Your task to perform on an android device: toggle pop-ups in chrome Image 0: 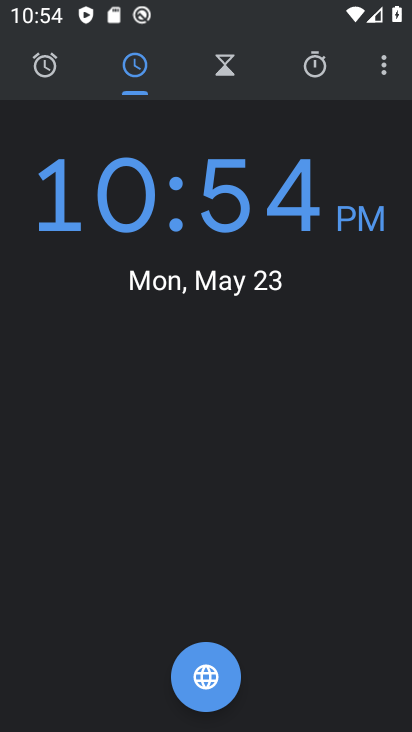
Step 0: click (399, 189)
Your task to perform on an android device: toggle pop-ups in chrome Image 1: 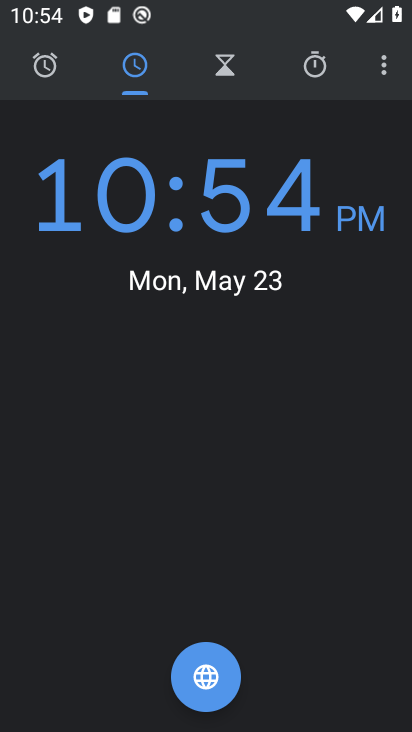
Step 1: press back button
Your task to perform on an android device: toggle pop-ups in chrome Image 2: 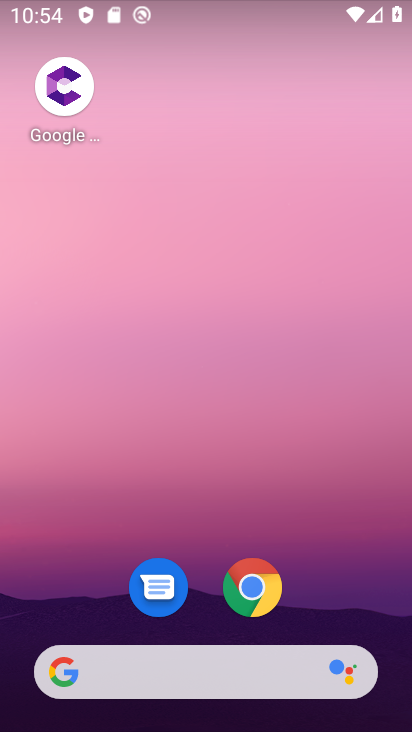
Step 2: drag from (301, 676) to (222, 45)
Your task to perform on an android device: toggle pop-ups in chrome Image 3: 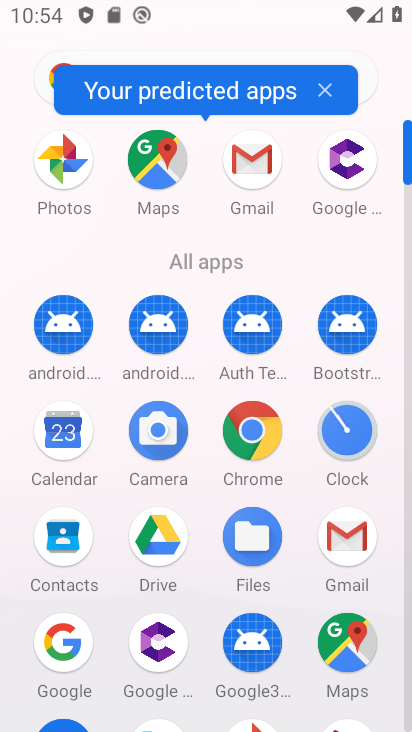
Step 3: click (244, 446)
Your task to perform on an android device: toggle pop-ups in chrome Image 4: 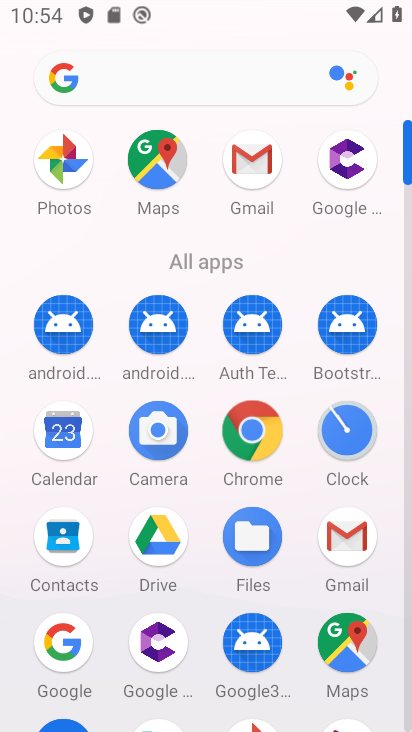
Step 4: click (247, 440)
Your task to perform on an android device: toggle pop-ups in chrome Image 5: 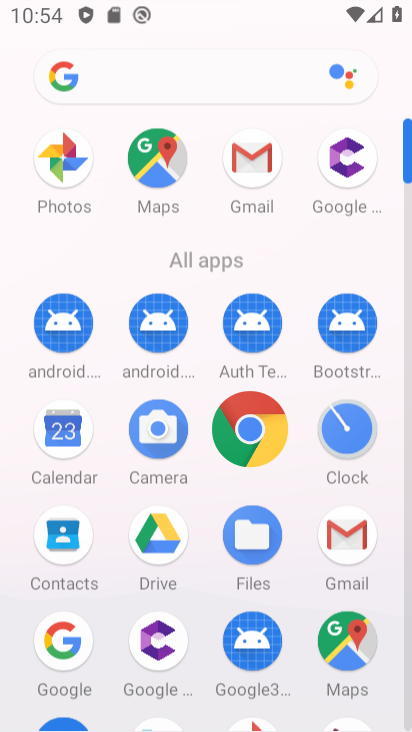
Step 5: click (251, 438)
Your task to perform on an android device: toggle pop-ups in chrome Image 6: 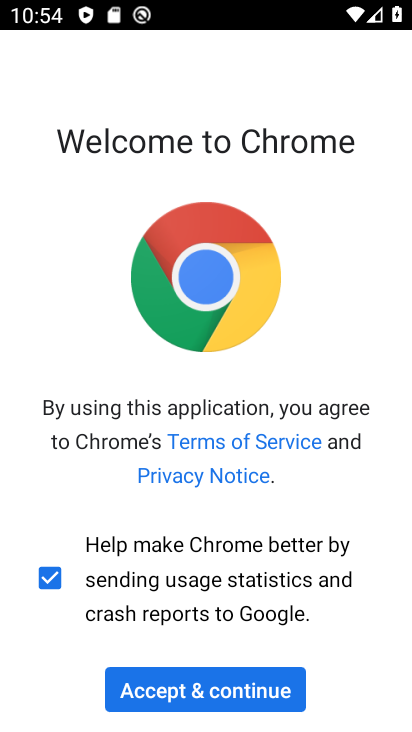
Step 6: click (193, 683)
Your task to perform on an android device: toggle pop-ups in chrome Image 7: 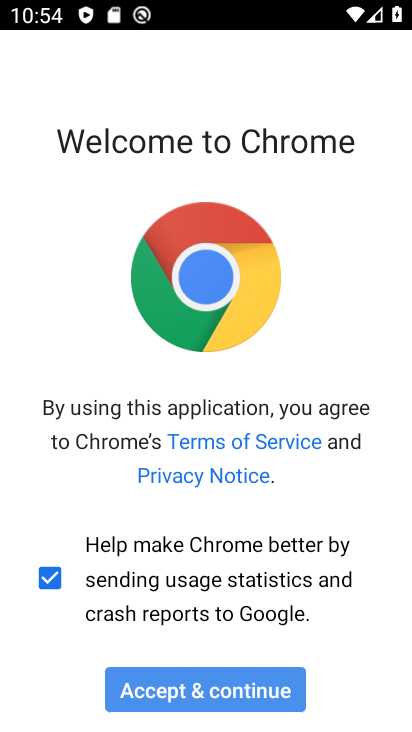
Step 7: click (194, 683)
Your task to perform on an android device: toggle pop-ups in chrome Image 8: 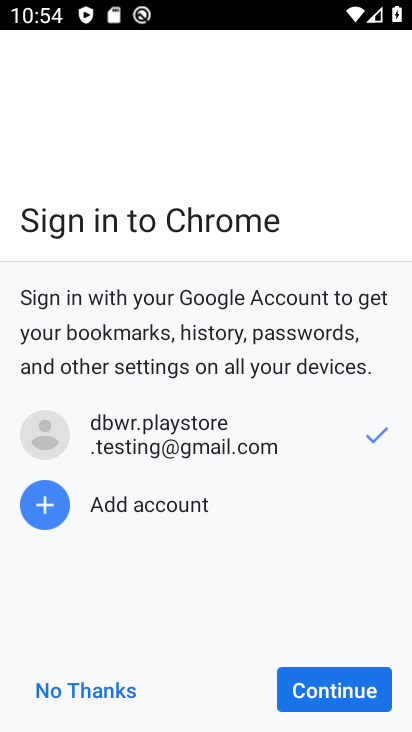
Step 8: click (198, 687)
Your task to perform on an android device: toggle pop-ups in chrome Image 9: 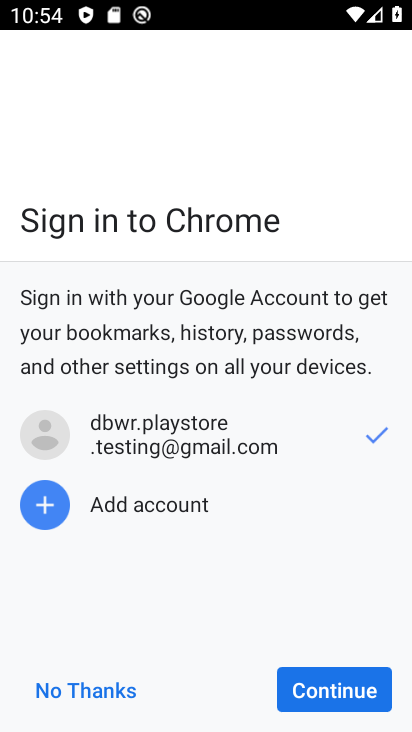
Step 9: click (201, 690)
Your task to perform on an android device: toggle pop-ups in chrome Image 10: 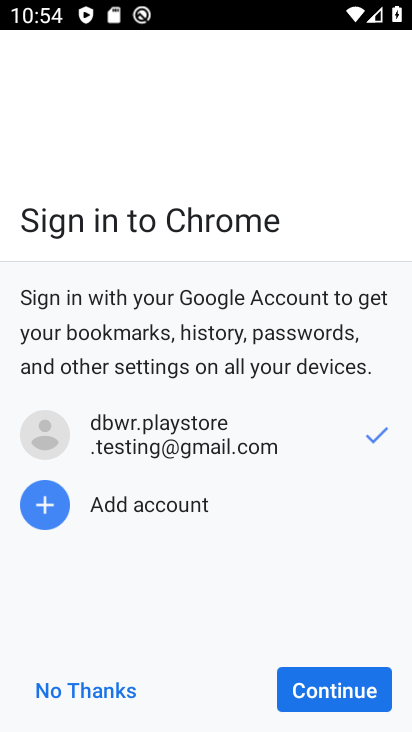
Step 10: click (348, 683)
Your task to perform on an android device: toggle pop-ups in chrome Image 11: 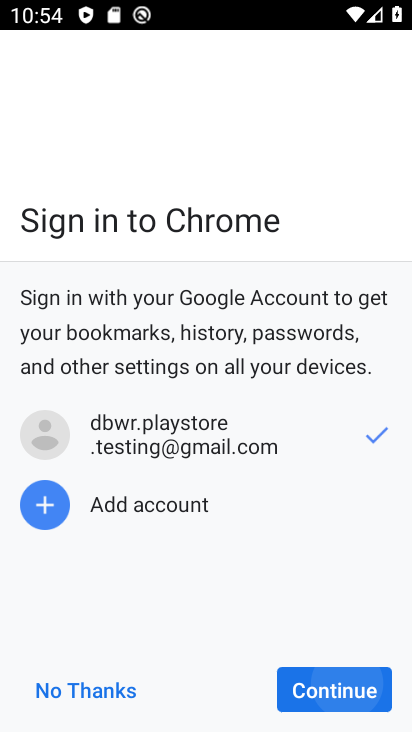
Step 11: click (348, 683)
Your task to perform on an android device: toggle pop-ups in chrome Image 12: 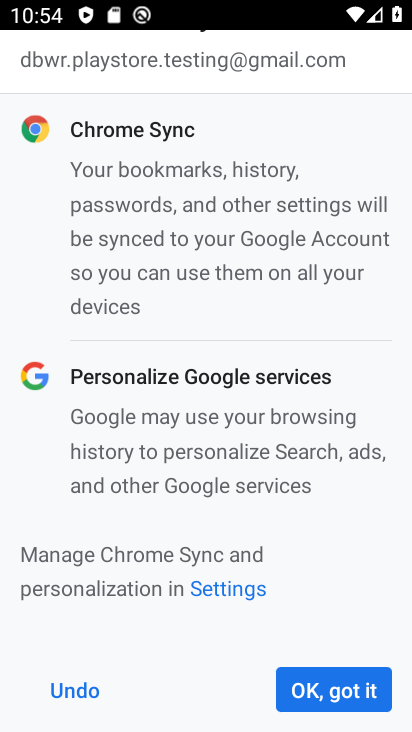
Step 12: click (349, 695)
Your task to perform on an android device: toggle pop-ups in chrome Image 13: 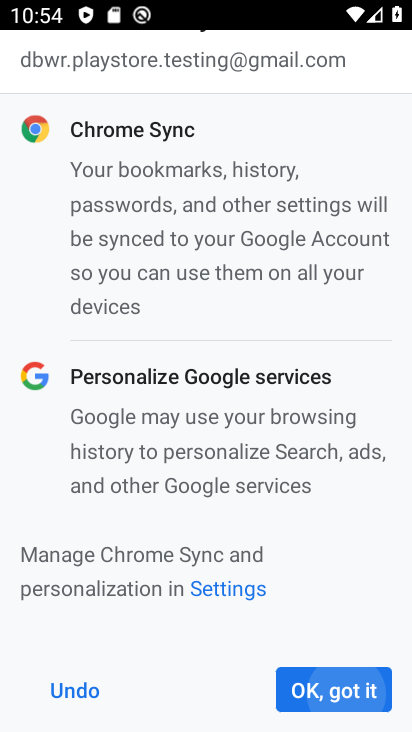
Step 13: click (353, 691)
Your task to perform on an android device: toggle pop-ups in chrome Image 14: 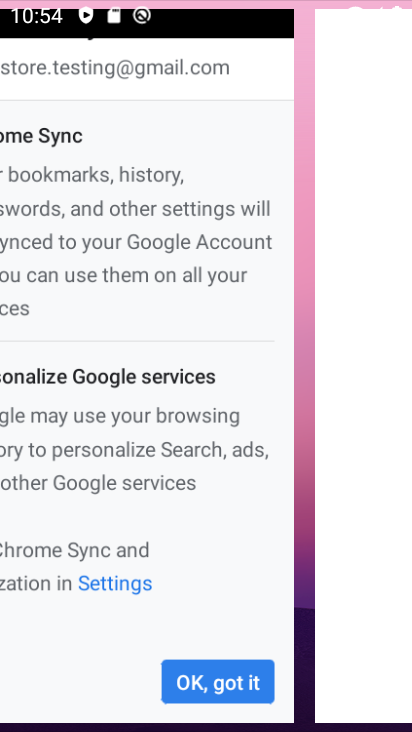
Step 14: click (352, 690)
Your task to perform on an android device: toggle pop-ups in chrome Image 15: 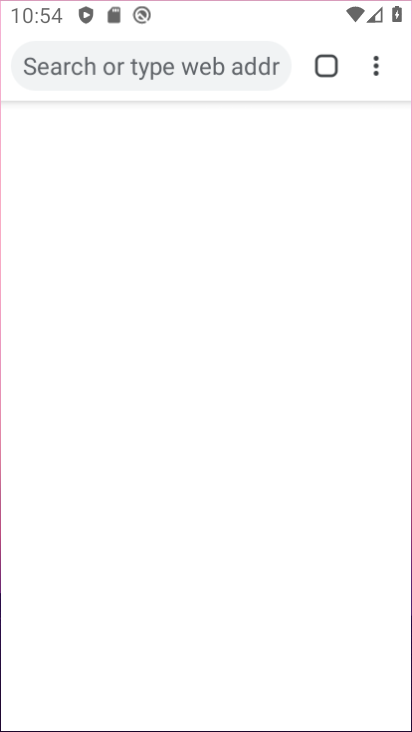
Step 15: click (351, 691)
Your task to perform on an android device: toggle pop-ups in chrome Image 16: 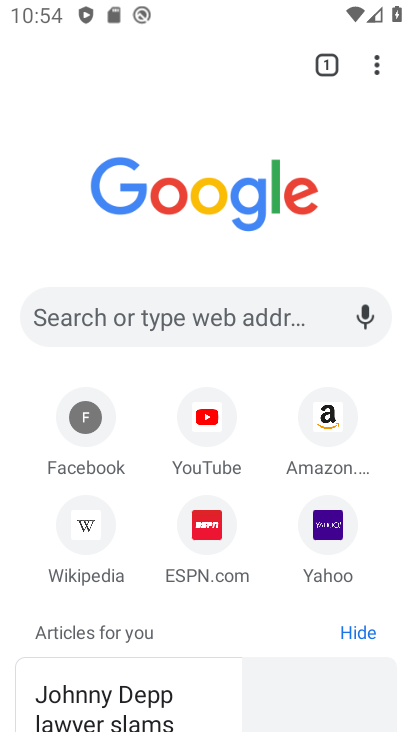
Step 16: click (368, 66)
Your task to perform on an android device: toggle pop-ups in chrome Image 17: 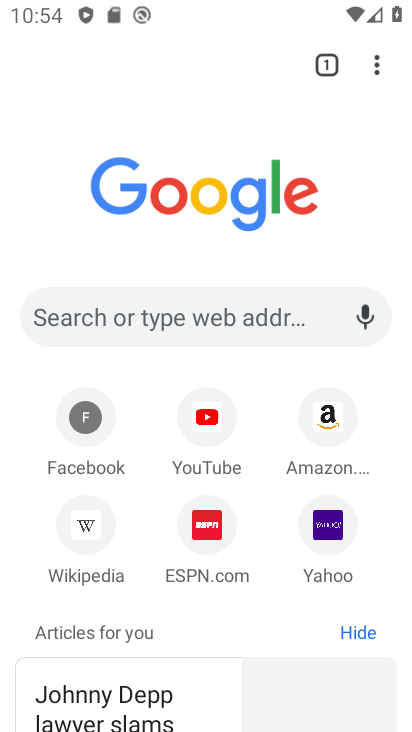
Step 17: click (373, 64)
Your task to perform on an android device: toggle pop-ups in chrome Image 18: 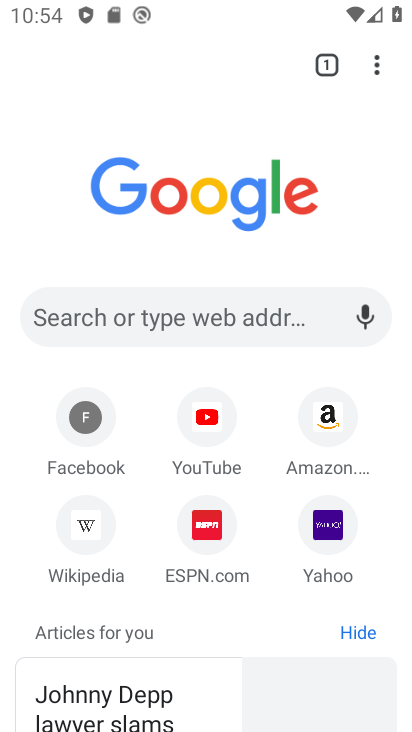
Step 18: drag from (365, 59) to (140, 539)
Your task to perform on an android device: toggle pop-ups in chrome Image 19: 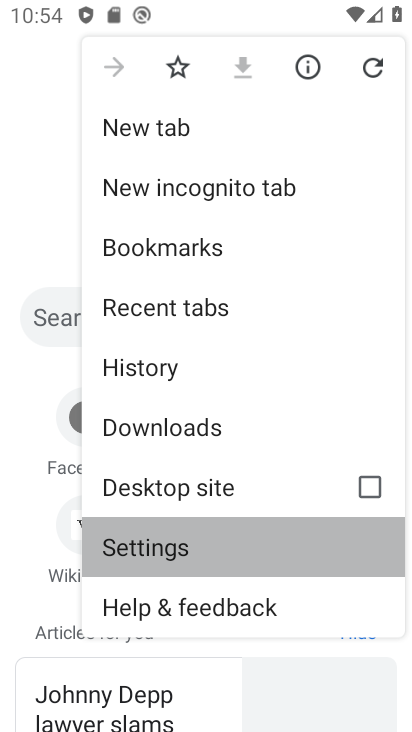
Step 19: click (140, 538)
Your task to perform on an android device: toggle pop-ups in chrome Image 20: 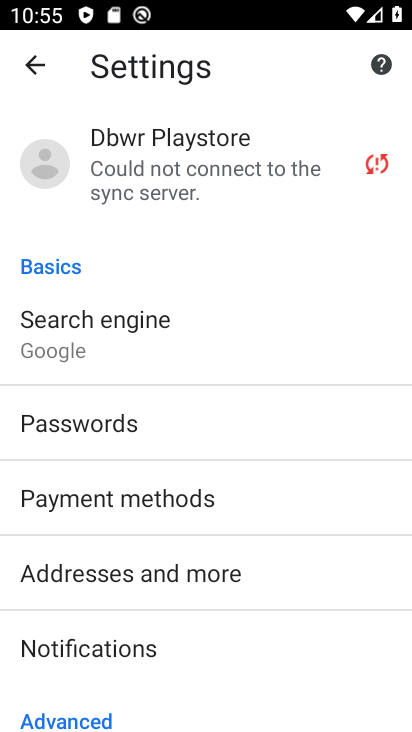
Step 20: drag from (80, 545) to (80, 210)
Your task to perform on an android device: toggle pop-ups in chrome Image 21: 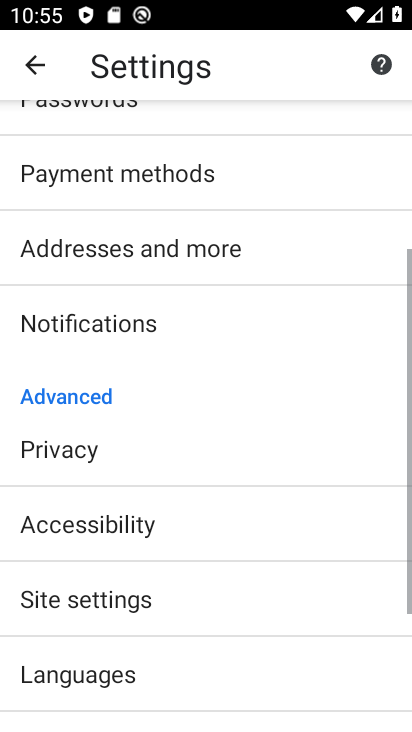
Step 21: drag from (115, 465) to (104, 206)
Your task to perform on an android device: toggle pop-ups in chrome Image 22: 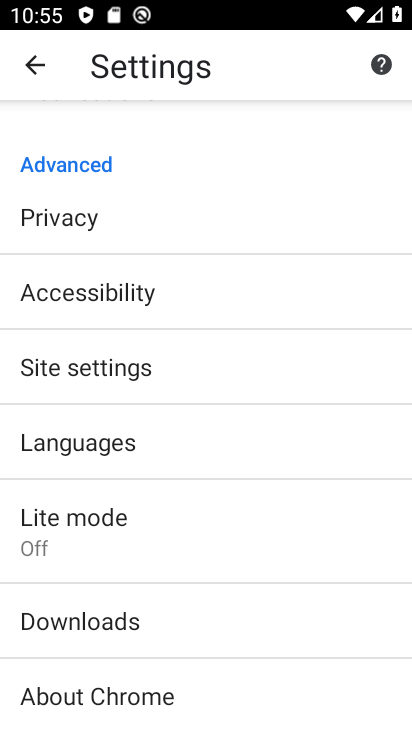
Step 22: click (65, 375)
Your task to perform on an android device: toggle pop-ups in chrome Image 23: 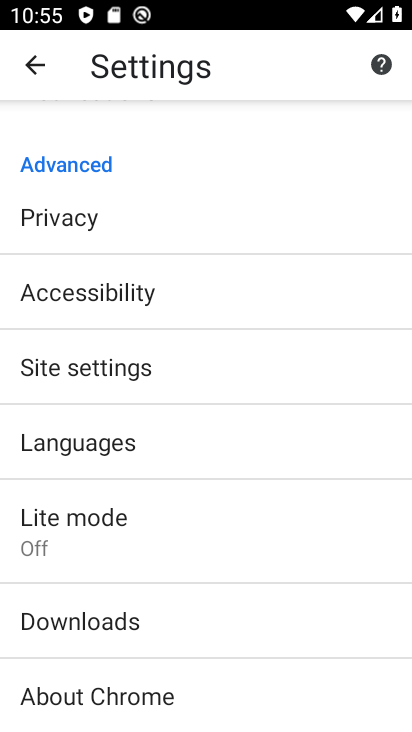
Step 23: click (65, 375)
Your task to perform on an android device: toggle pop-ups in chrome Image 24: 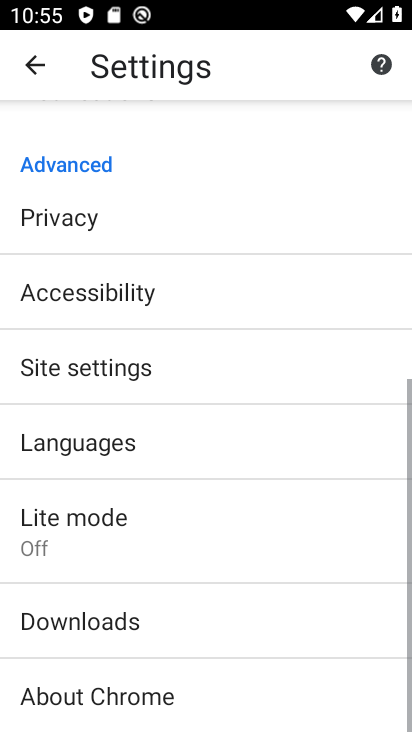
Step 24: click (65, 375)
Your task to perform on an android device: toggle pop-ups in chrome Image 25: 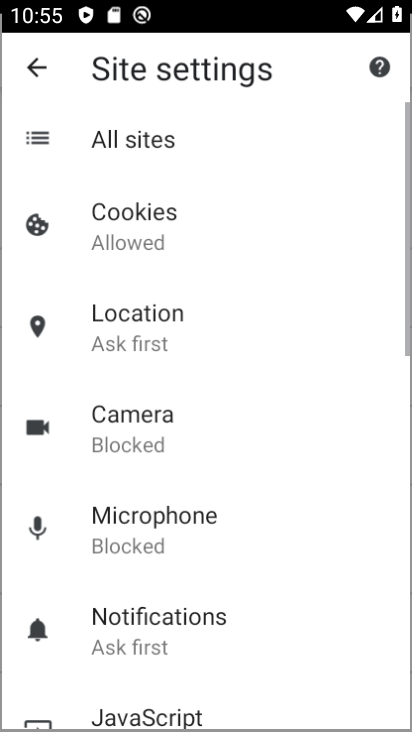
Step 25: click (65, 375)
Your task to perform on an android device: toggle pop-ups in chrome Image 26: 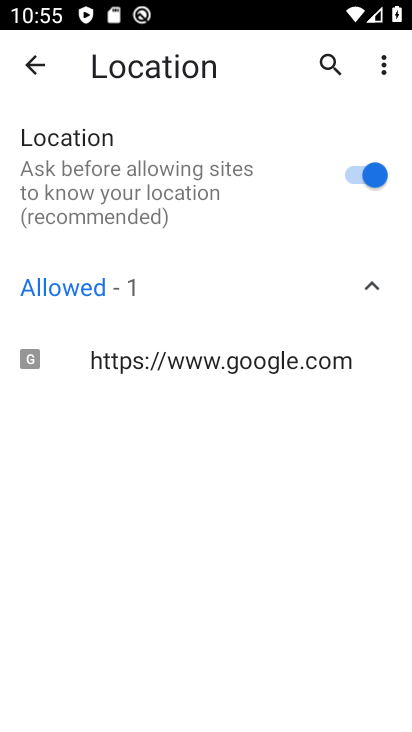
Step 26: click (27, 66)
Your task to perform on an android device: toggle pop-ups in chrome Image 27: 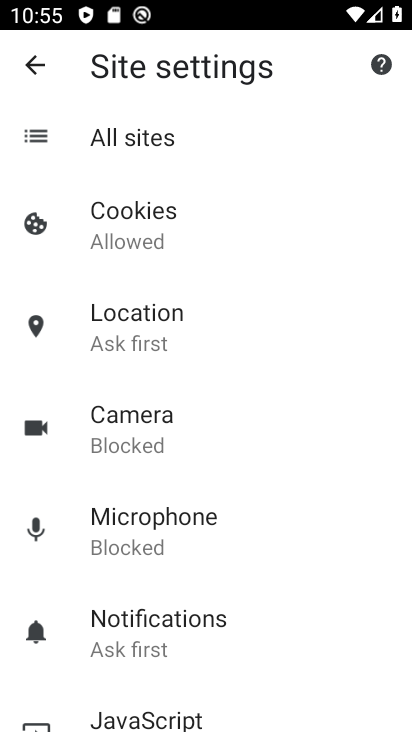
Step 27: drag from (133, 543) to (93, 150)
Your task to perform on an android device: toggle pop-ups in chrome Image 28: 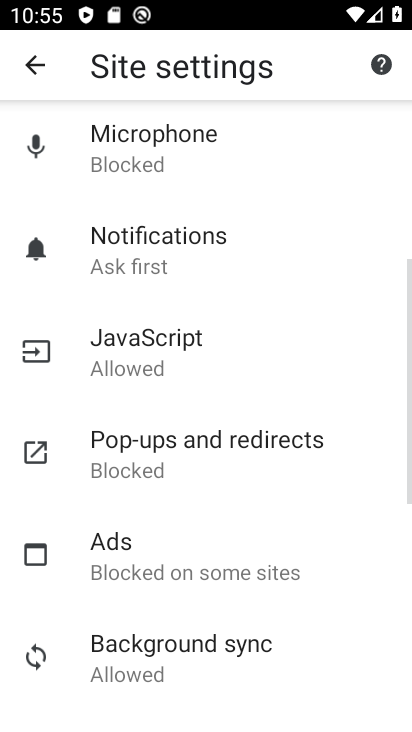
Step 28: click (135, 446)
Your task to perform on an android device: toggle pop-ups in chrome Image 29: 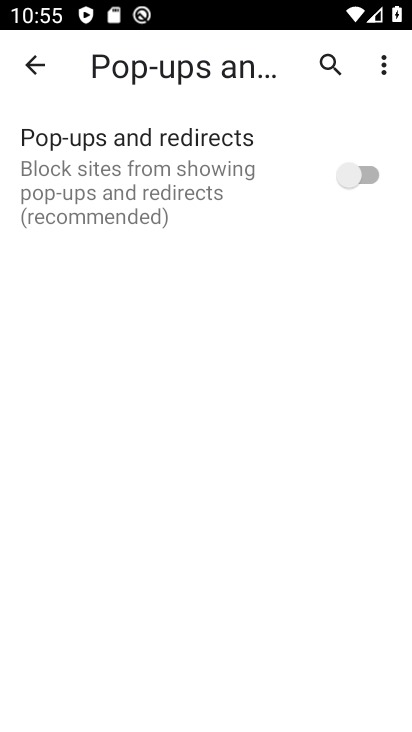
Step 29: task complete